Your task to perform on an android device: install app "Duolingo: language lessons" Image 0: 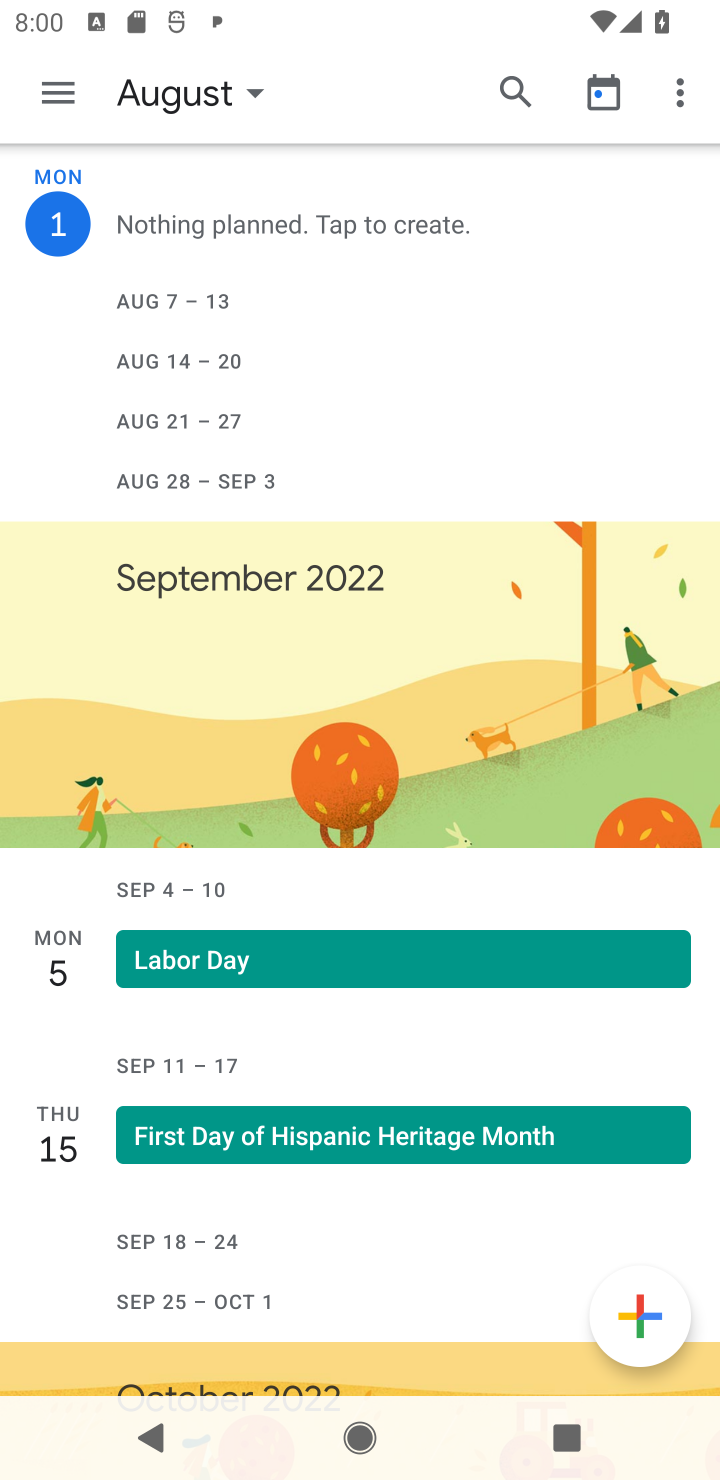
Step 0: press home button
Your task to perform on an android device: install app "Duolingo: language lessons" Image 1: 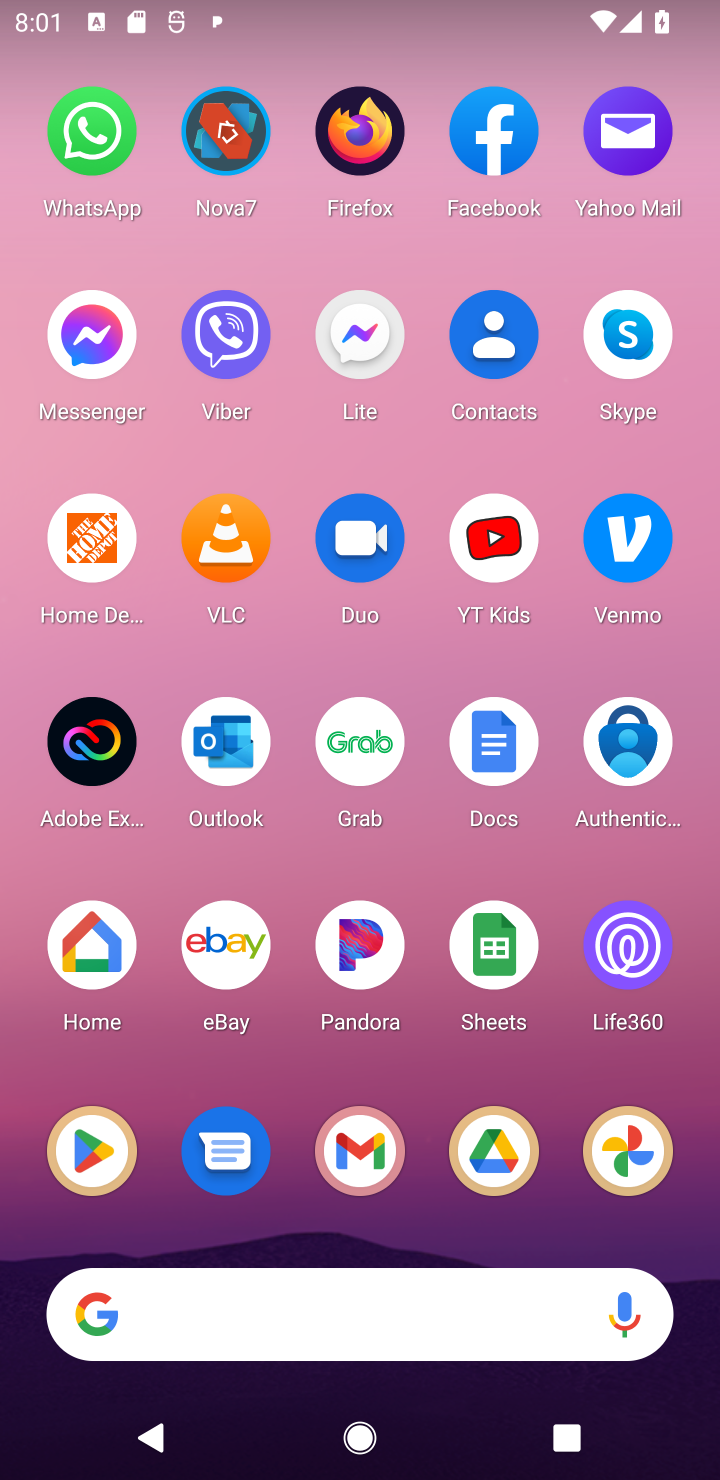
Step 1: click (86, 1161)
Your task to perform on an android device: install app "Duolingo: language lessons" Image 2: 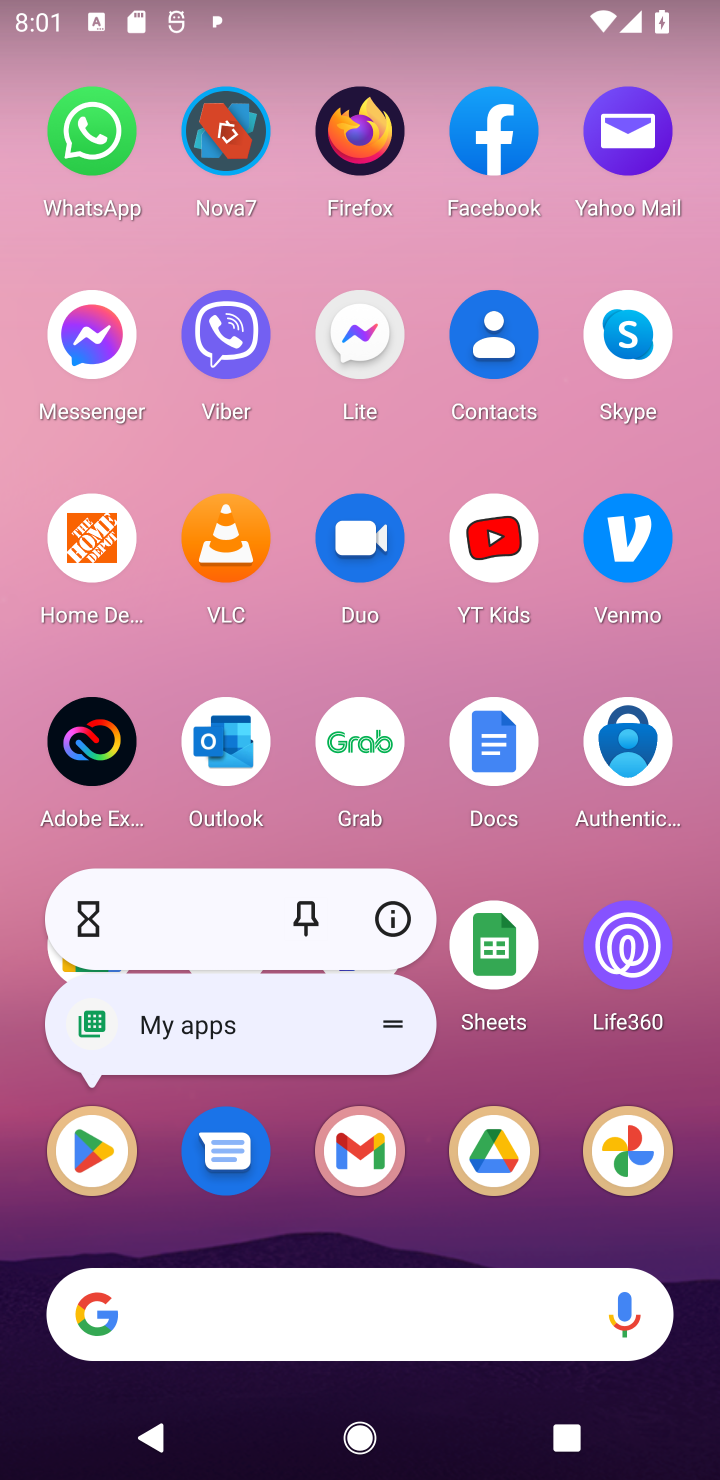
Step 2: click (86, 1161)
Your task to perform on an android device: install app "Duolingo: language lessons" Image 3: 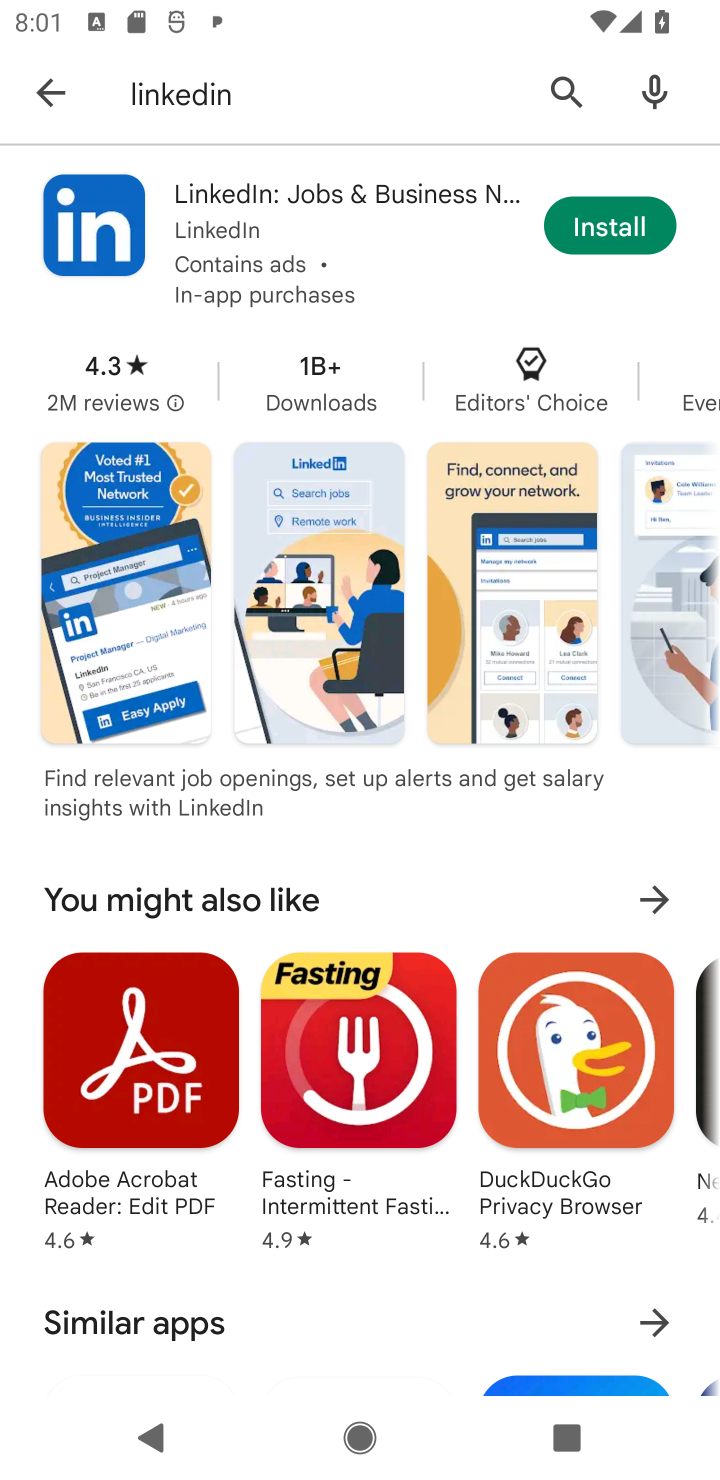
Step 3: click (561, 79)
Your task to perform on an android device: install app "Duolingo: language lessons" Image 4: 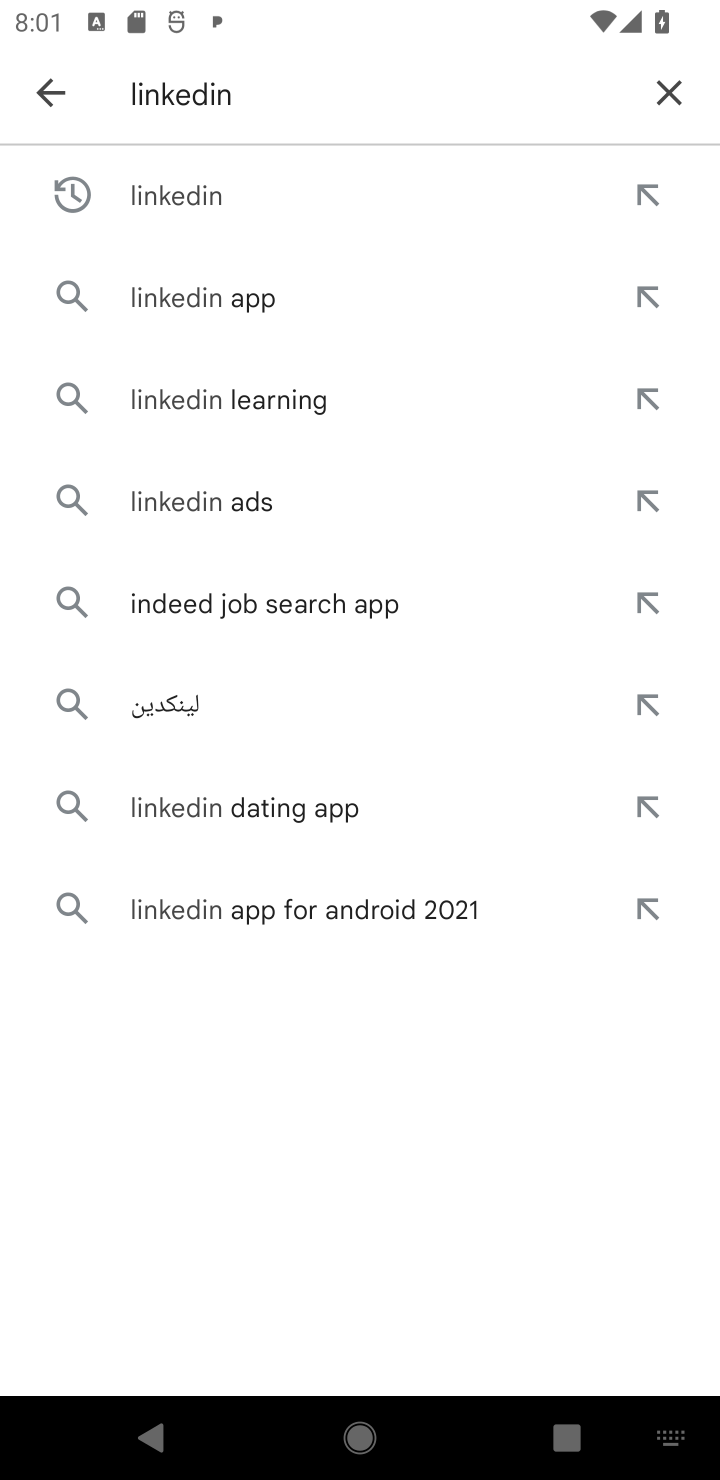
Step 4: click (668, 91)
Your task to perform on an android device: install app "Duolingo: language lessons" Image 5: 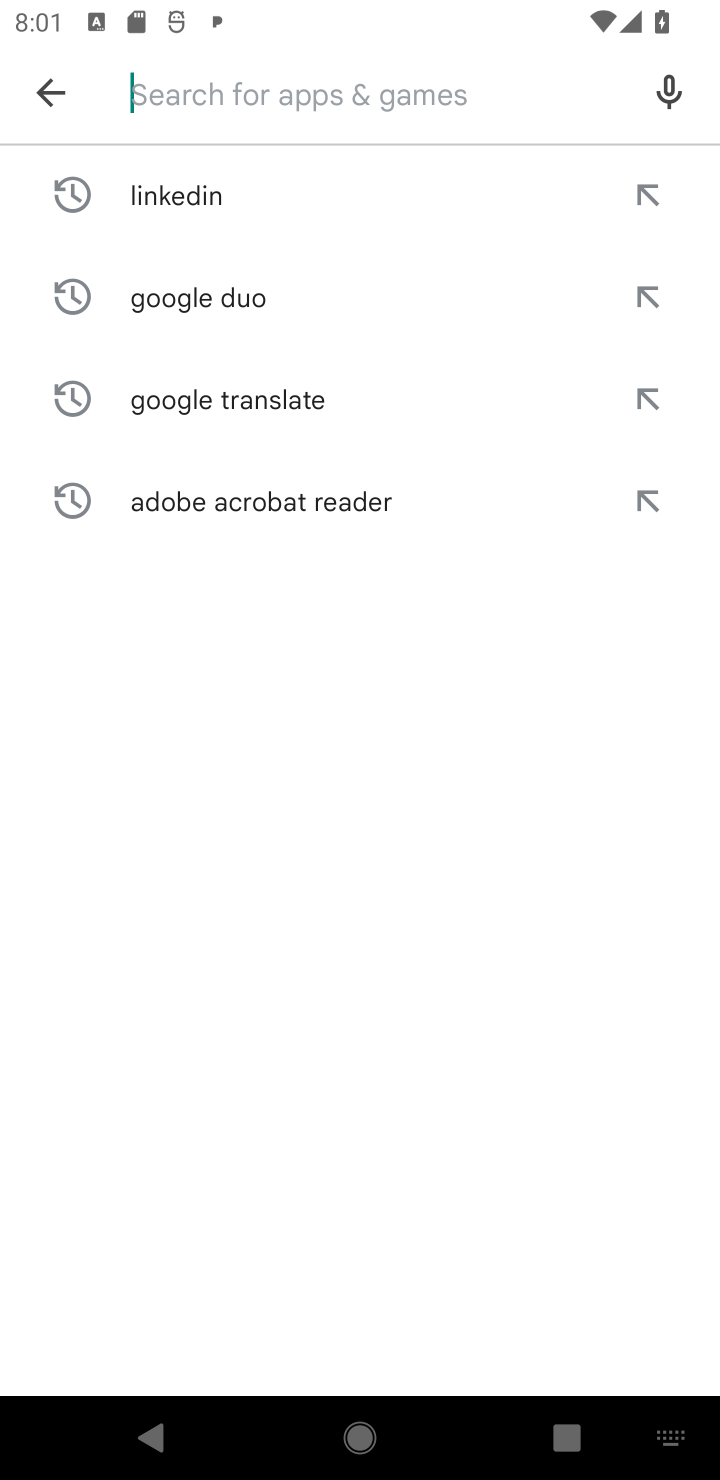
Step 5: type "Duolingo: language lessons"
Your task to perform on an android device: install app "Duolingo: language lessons" Image 6: 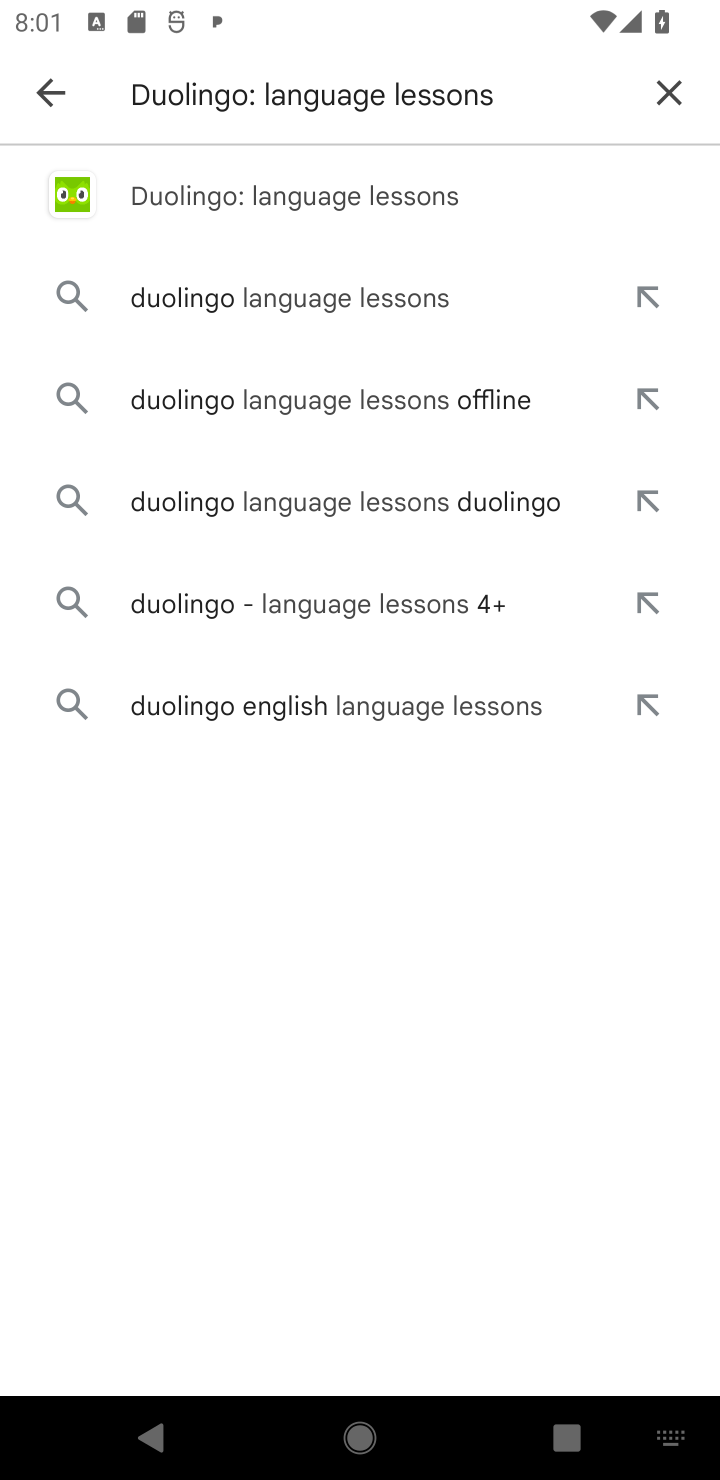
Step 6: click (278, 212)
Your task to perform on an android device: install app "Duolingo: language lessons" Image 7: 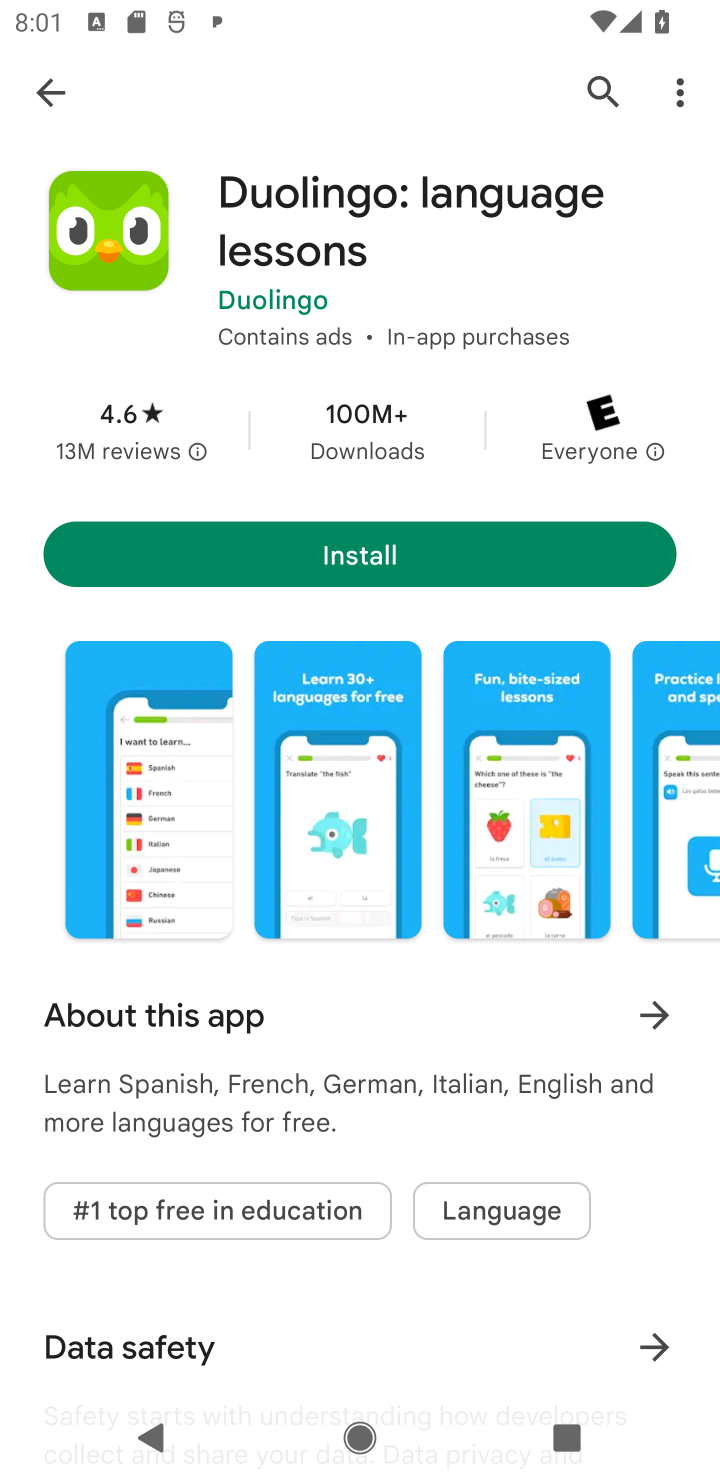
Step 7: click (332, 572)
Your task to perform on an android device: install app "Duolingo: language lessons" Image 8: 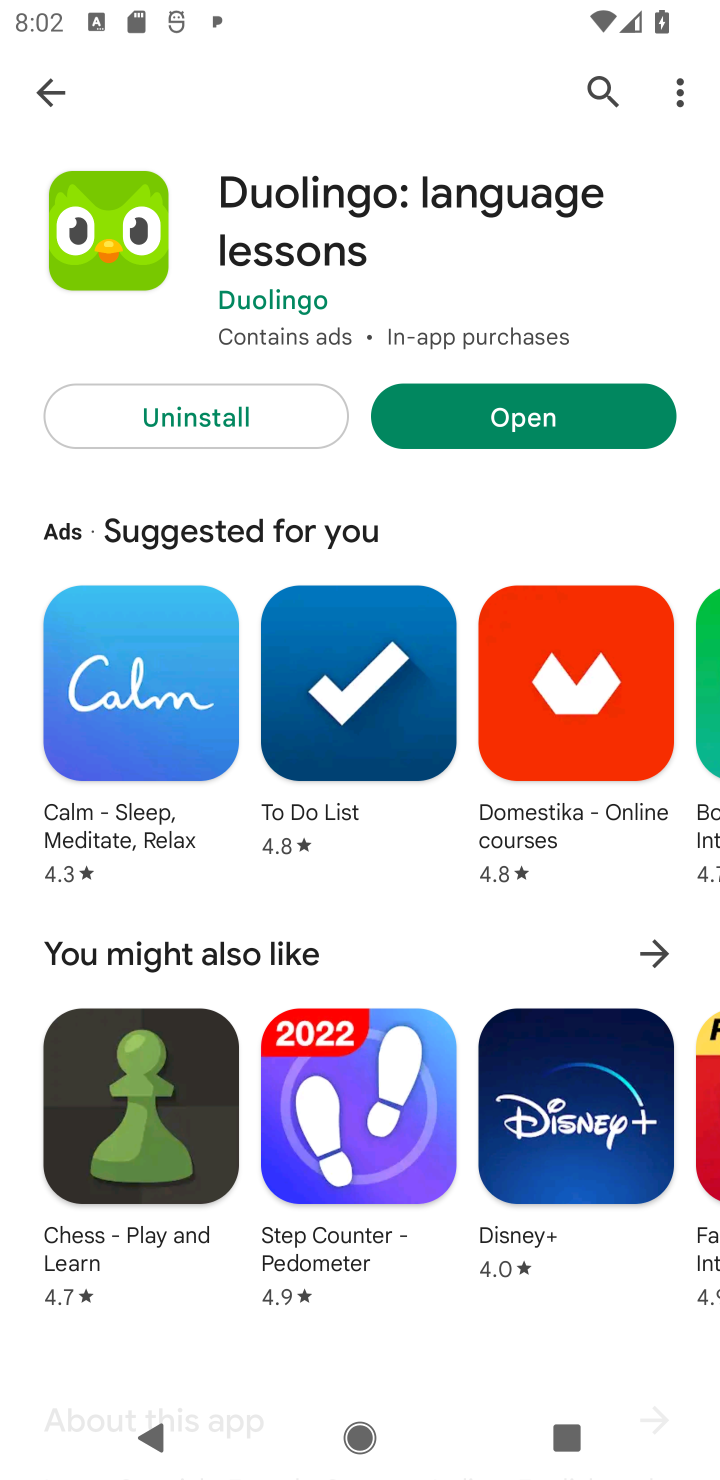
Step 8: task complete